Your task to perform on an android device: open app "Indeed Job Search" (install if not already installed), go to login, and select forgot password Image 0: 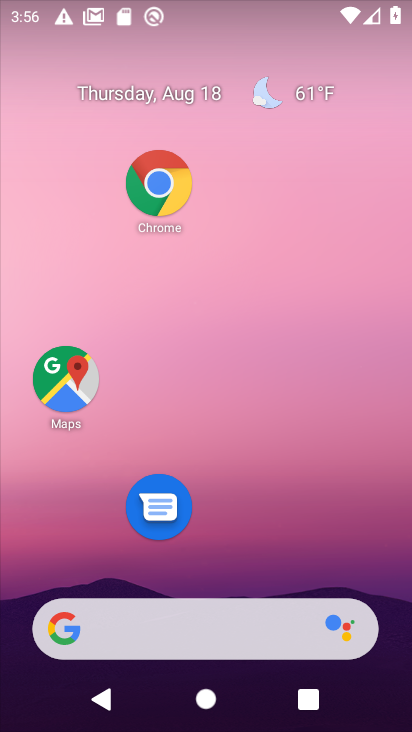
Step 0: drag from (252, 540) to (321, 55)
Your task to perform on an android device: open app "Indeed Job Search" (install if not already installed), go to login, and select forgot password Image 1: 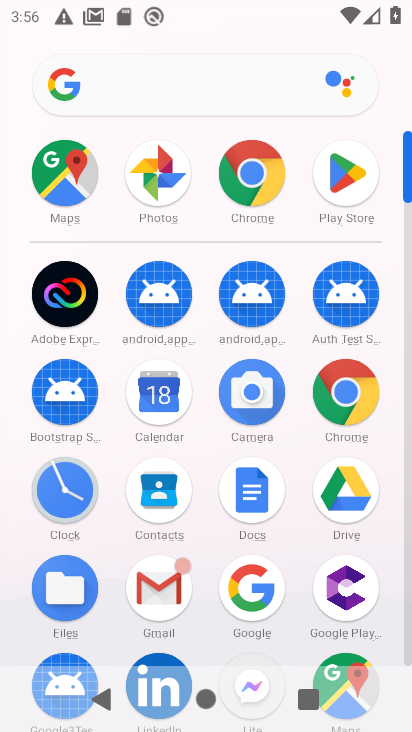
Step 1: click (349, 172)
Your task to perform on an android device: open app "Indeed Job Search" (install if not already installed), go to login, and select forgot password Image 2: 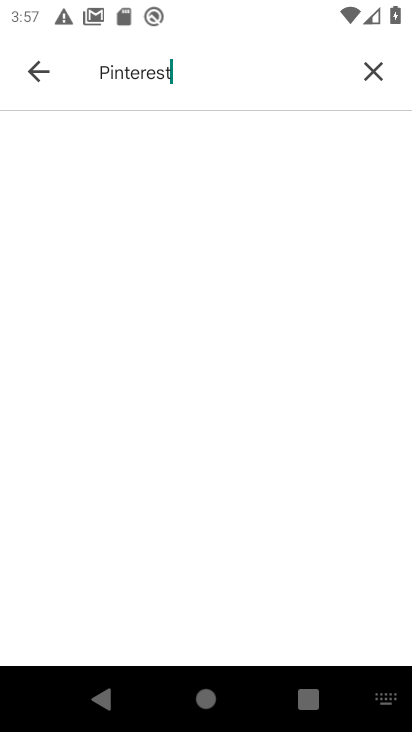
Step 2: click (366, 63)
Your task to perform on an android device: open app "Indeed Job Search" (install if not already installed), go to login, and select forgot password Image 3: 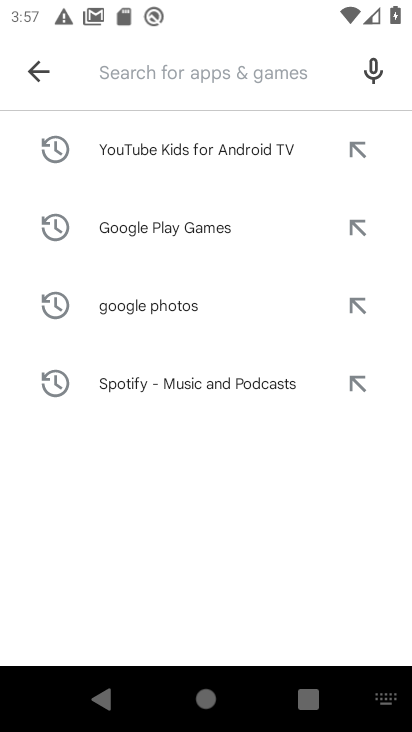
Step 3: click (126, 76)
Your task to perform on an android device: open app "Indeed Job Search" (install if not already installed), go to login, and select forgot password Image 4: 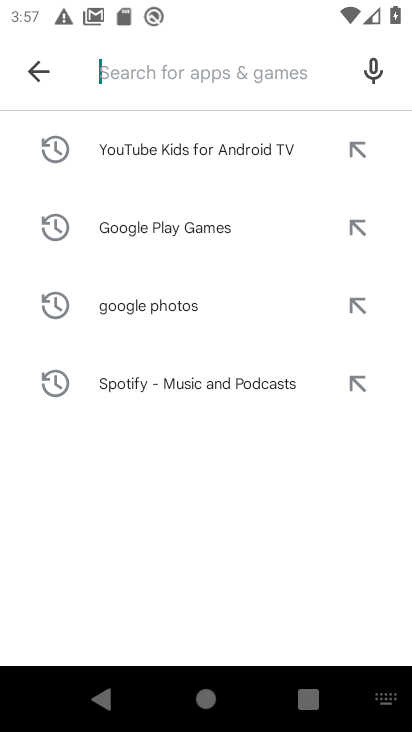
Step 4: type "Indeed Job Search"
Your task to perform on an android device: open app "Indeed Job Search" (install if not already installed), go to login, and select forgot password Image 5: 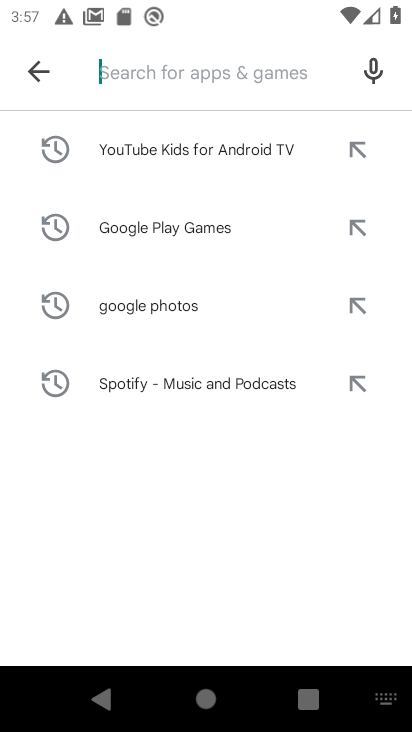
Step 5: click (133, 546)
Your task to perform on an android device: open app "Indeed Job Search" (install if not already installed), go to login, and select forgot password Image 6: 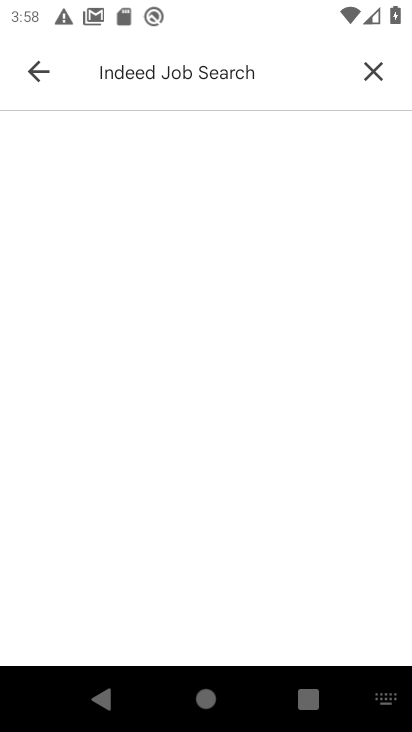
Step 6: task complete